Your task to perform on an android device: check the backup settings in the google photos Image 0: 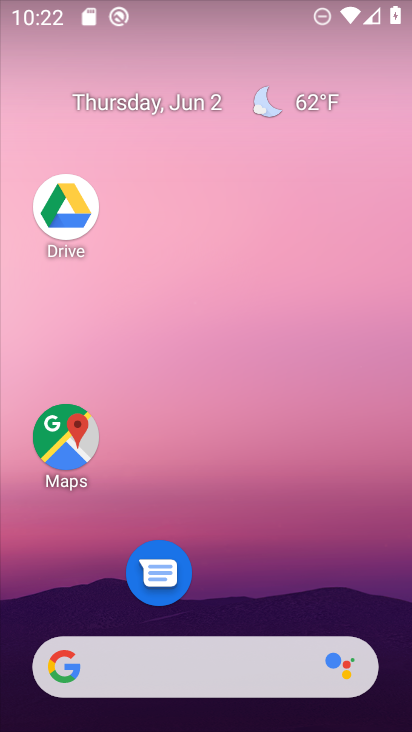
Step 0: drag from (171, 610) to (47, 31)
Your task to perform on an android device: check the backup settings in the google photos Image 1: 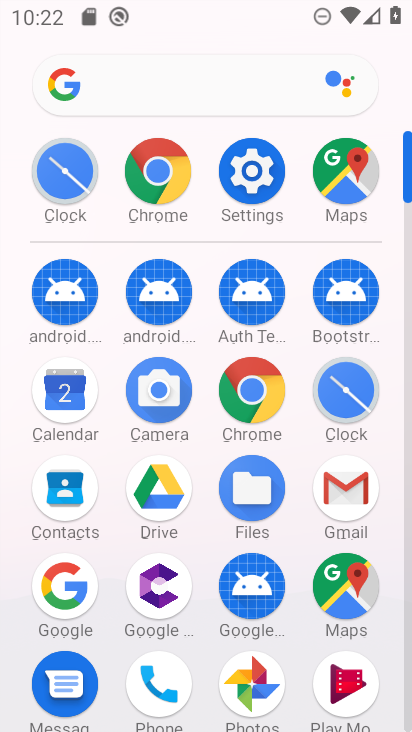
Step 1: click (258, 684)
Your task to perform on an android device: check the backup settings in the google photos Image 2: 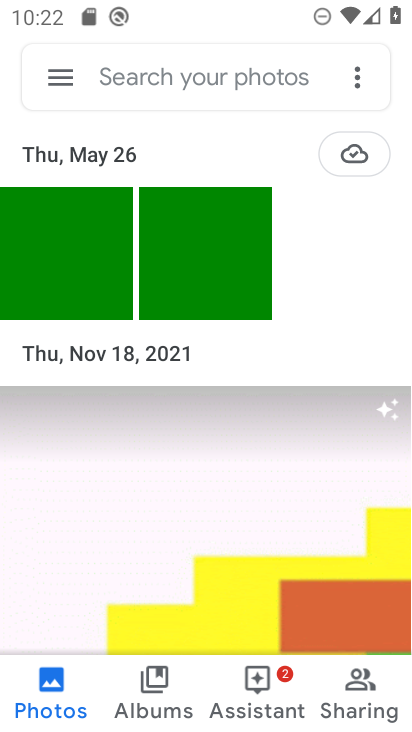
Step 2: click (56, 63)
Your task to perform on an android device: check the backup settings in the google photos Image 3: 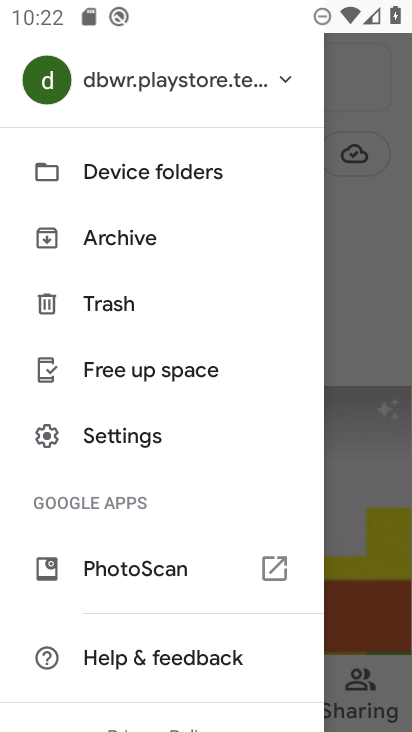
Step 3: drag from (139, 653) to (90, 320)
Your task to perform on an android device: check the backup settings in the google photos Image 4: 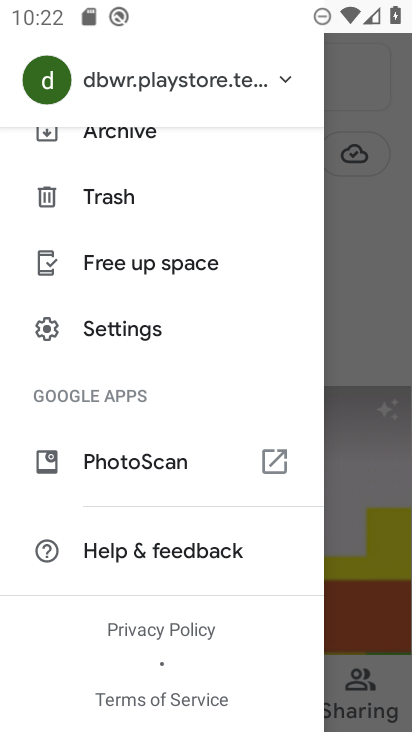
Step 4: click (107, 309)
Your task to perform on an android device: check the backup settings in the google photos Image 5: 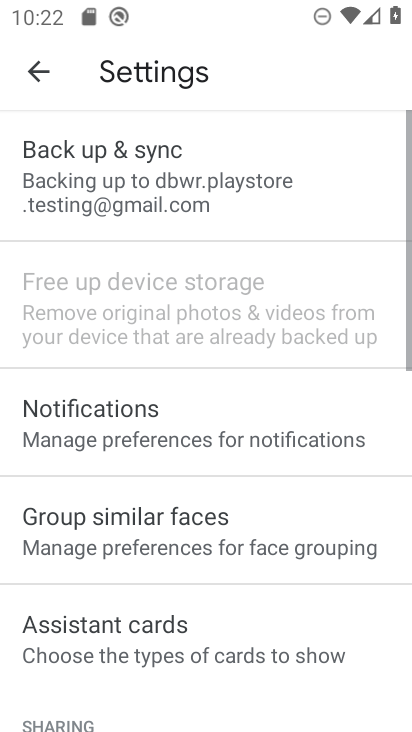
Step 5: click (105, 200)
Your task to perform on an android device: check the backup settings in the google photos Image 6: 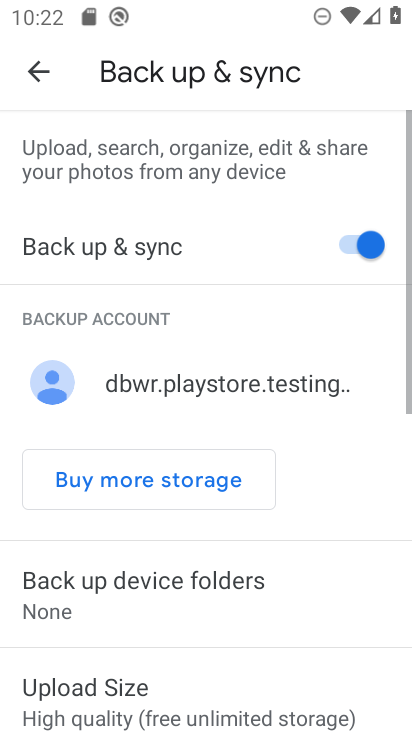
Step 6: task complete